Your task to perform on an android device: find photos in the google photos app Image 0: 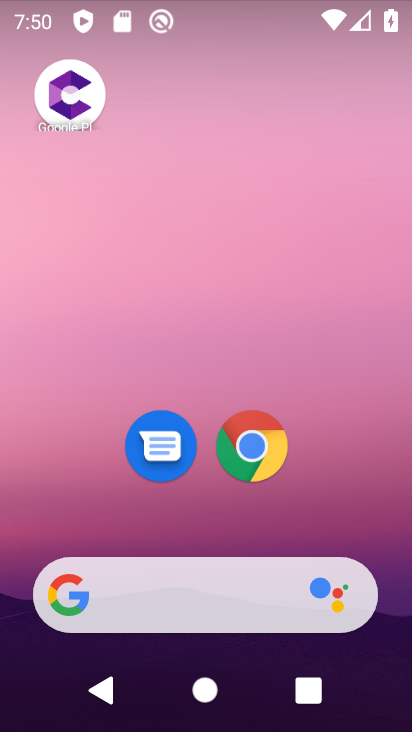
Step 0: drag from (324, 523) to (369, 87)
Your task to perform on an android device: find photos in the google photos app Image 1: 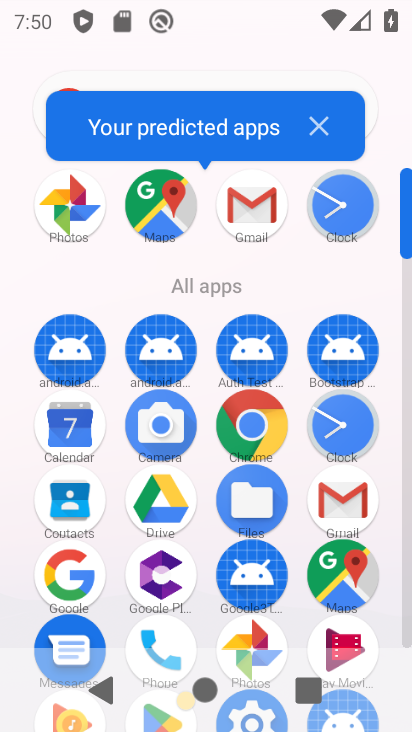
Step 1: drag from (187, 609) to (198, 258)
Your task to perform on an android device: find photos in the google photos app Image 2: 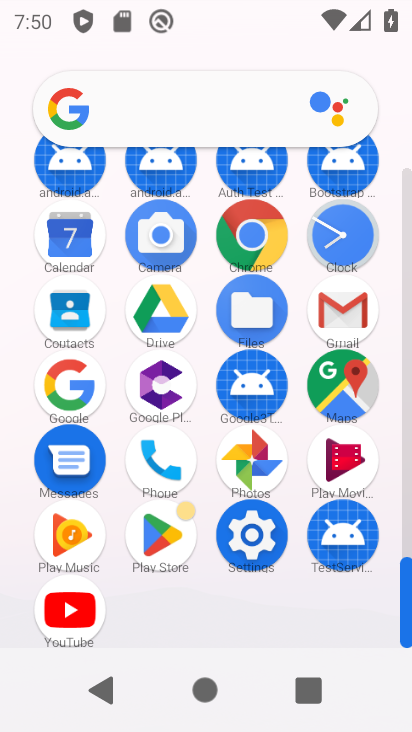
Step 2: drag from (235, 459) to (192, 197)
Your task to perform on an android device: find photos in the google photos app Image 3: 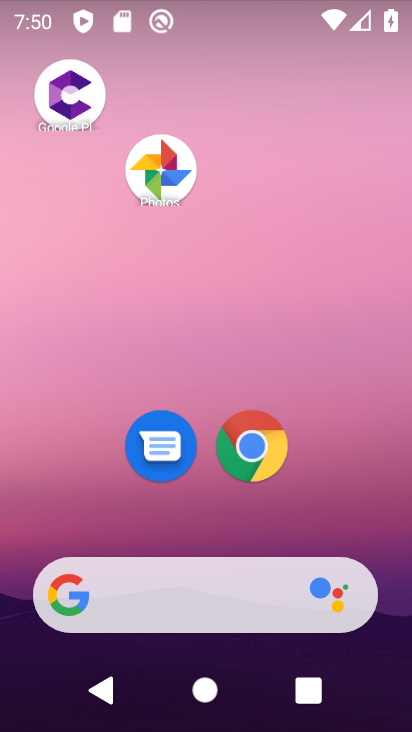
Step 3: drag from (156, 163) to (102, 156)
Your task to perform on an android device: find photos in the google photos app Image 4: 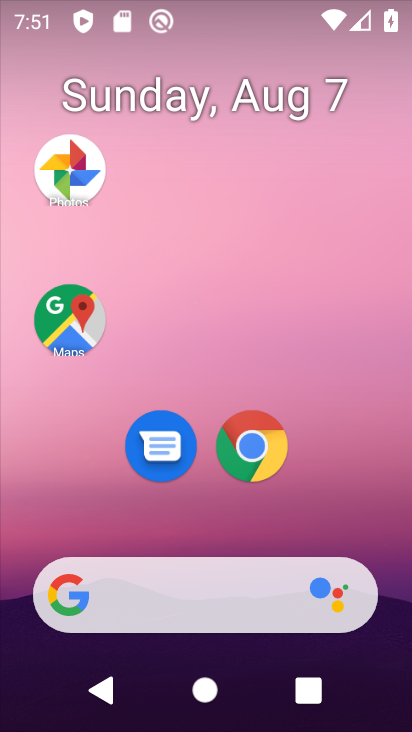
Step 4: click (79, 151)
Your task to perform on an android device: find photos in the google photos app Image 5: 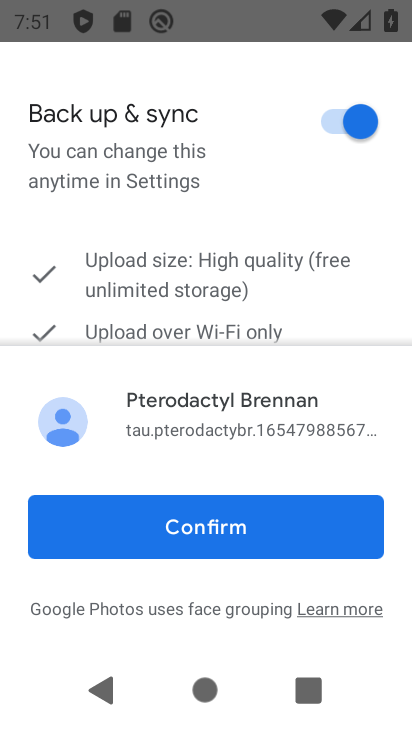
Step 5: click (317, 529)
Your task to perform on an android device: find photos in the google photos app Image 6: 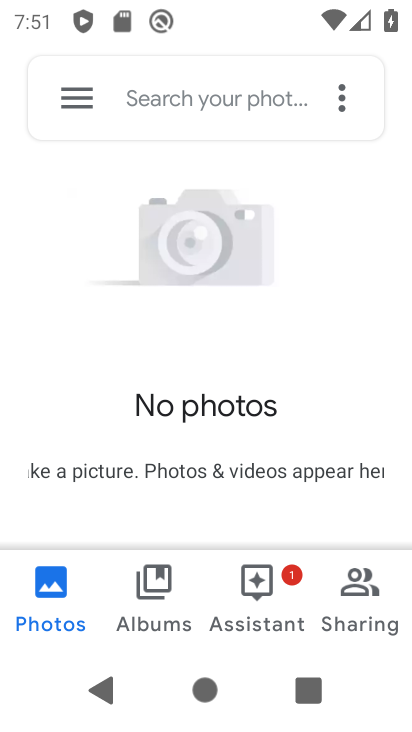
Step 6: task complete